Your task to perform on an android device: Search for Italian restaurants on Maps Image 0: 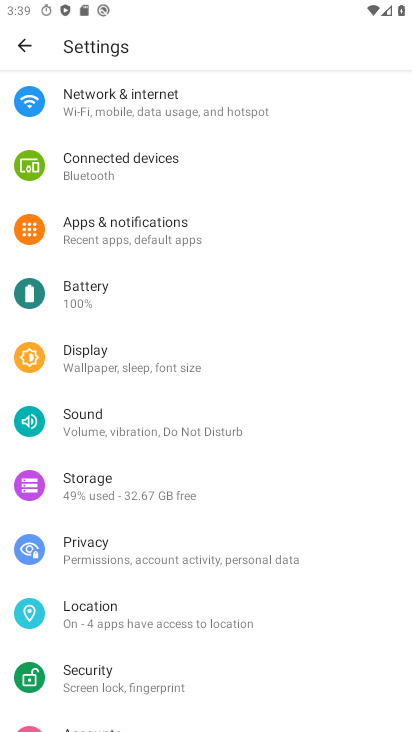
Step 0: press home button
Your task to perform on an android device: Search for Italian restaurants on Maps Image 1: 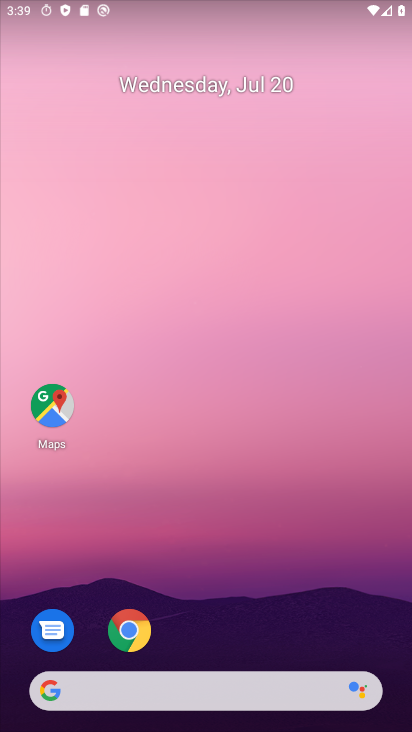
Step 1: drag from (253, 611) to (255, 3)
Your task to perform on an android device: Search for Italian restaurants on Maps Image 2: 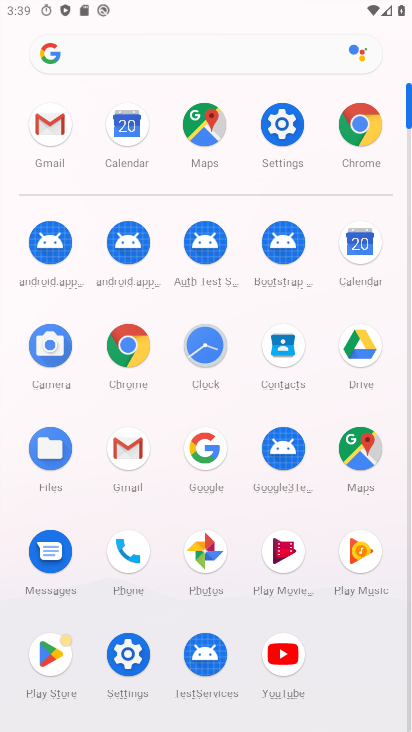
Step 2: click (188, 123)
Your task to perform on an android device: Search for Italian restaurants on Maps Image 3: 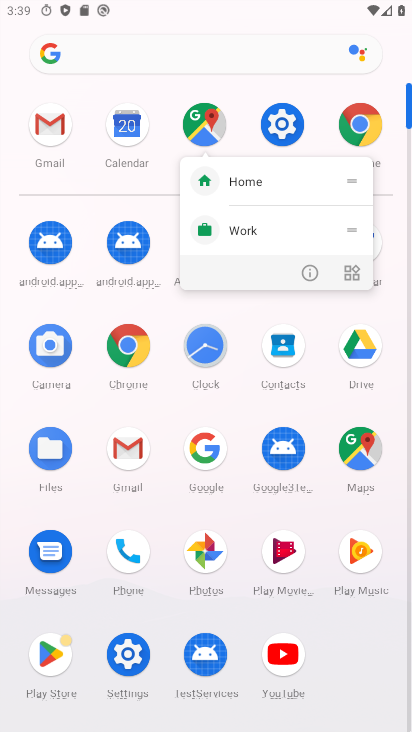
Step 3: click (188, 123)
Your task to perform on an android device: Search for Italian restaurants on Maps Image 4: 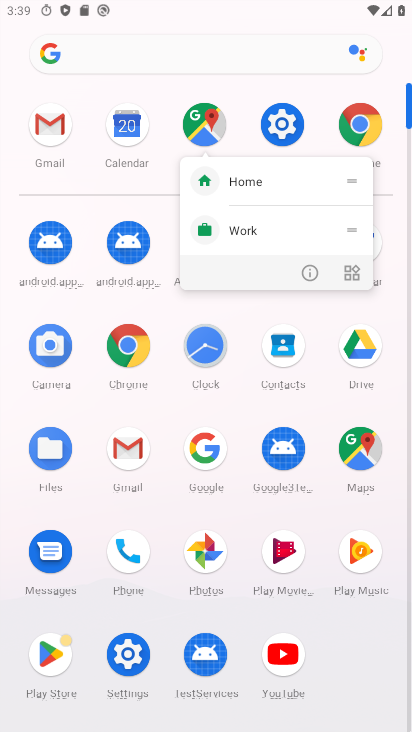
Step 4: click (188, 123)
Your task to perform on an android device: Search for Italian restaurants on Maps Image 5: 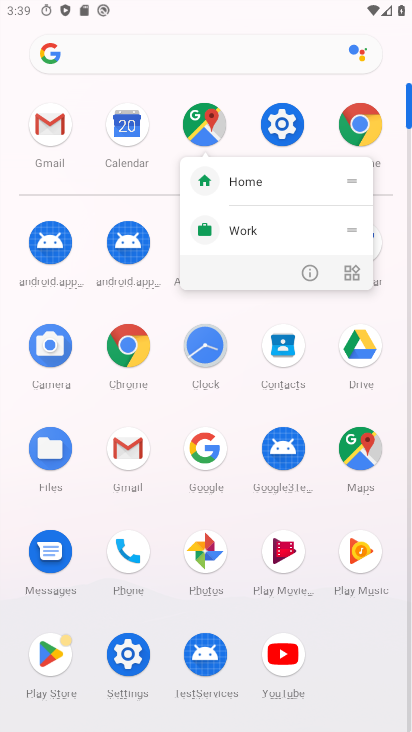
Step 5: click (204, 133)
Your task to perform on an android device: Search for Italian restaurants on Maps Image 6: 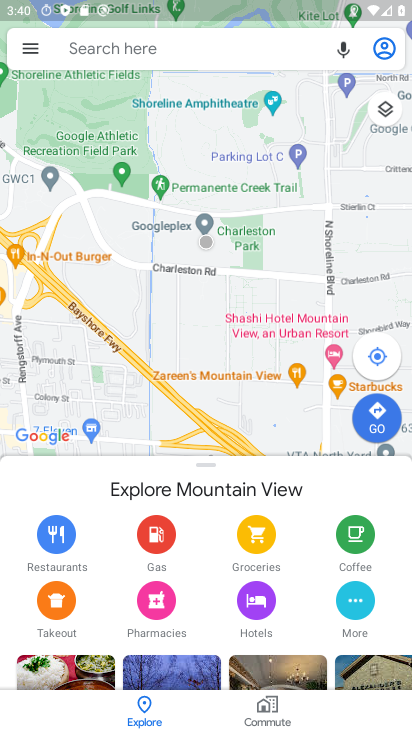
Step 6: click (174, 44)
Your task to perform on an android device: Search for Italian restaurants on Maps Image 7: 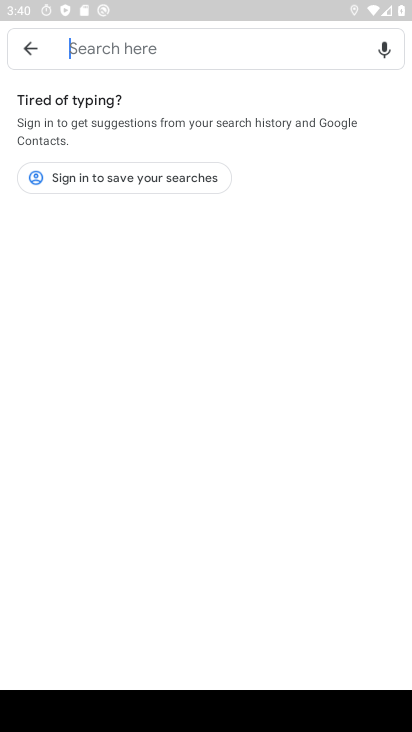
Step 7: task complete